Your task to perform on an android device: What's the weather going to be tomorrow? Image 0: 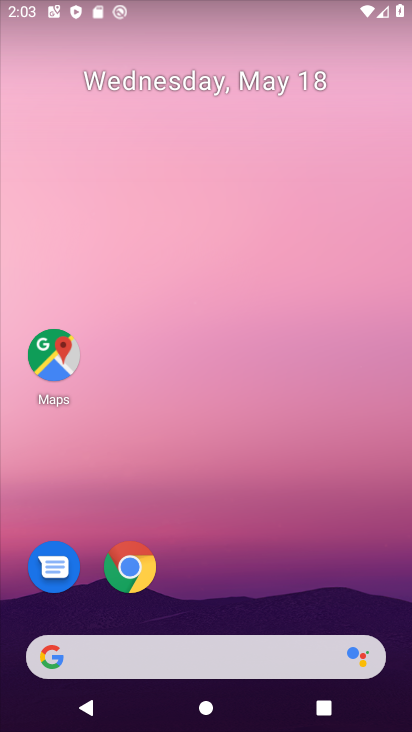
Step 0: click (119, 569)
Your task to perform on an android device: What's the weather going to be tomorrow? Image 1: 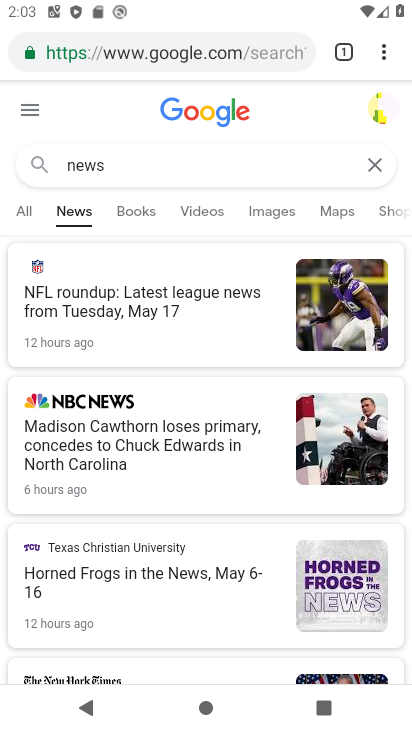
Step 1: click (147, 53)
Your task to perform on an android device: What's the weather going to be tomorrow? Image 2: 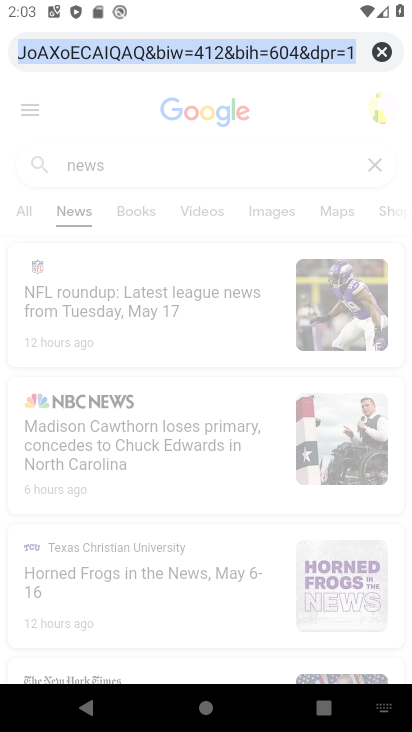
Step 2: click (378, 50)
Your task to perform on an android device: What's the weather going to be tomorrow? Image 3: 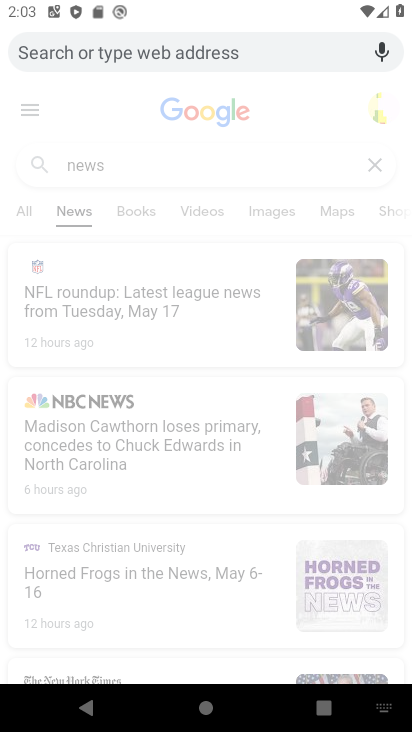
Step 3: type "weather"
Your task to perform on an android device: What's the weather going to be tomorrow? Image 4: 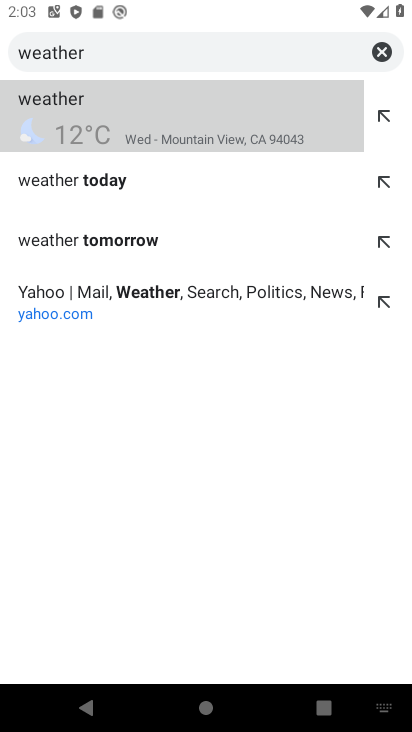
Step 4: click (104, 142)
Your task to perform on an android device: What's the weather going to be tomorrow? Image 5: 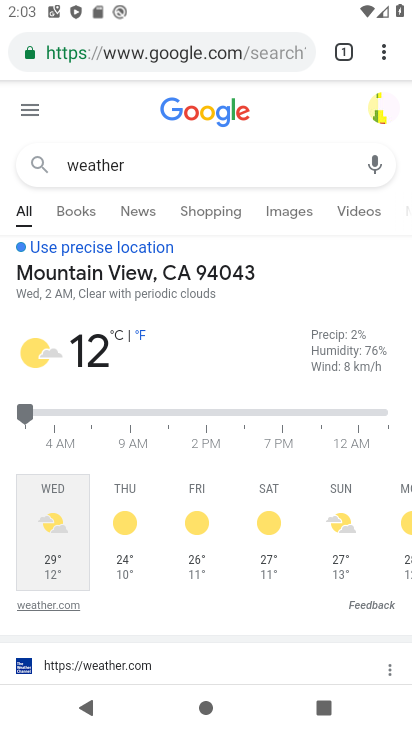
Step 5: click (126, 543)
Your task to perform on an android device: What's the weather going to be tomorrow? Image 6: 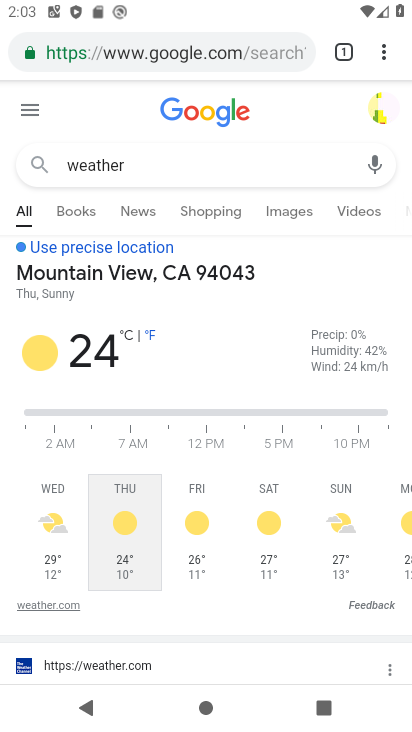
Step 6: task complete